Your task to perform on an android device: Find coffee shops on Maps Image 0: 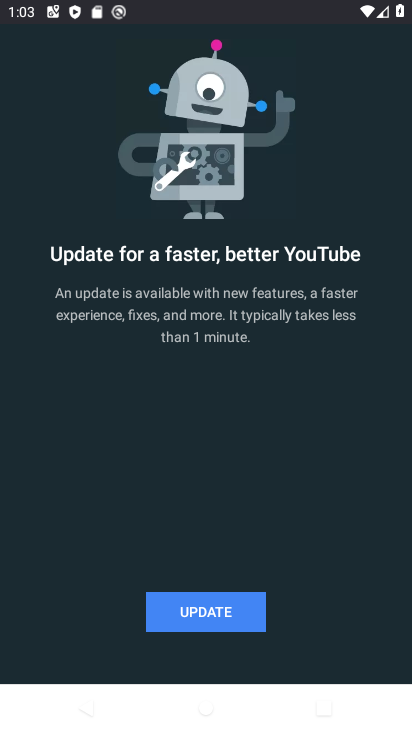
Step 0: click (336, 470)
Your task to perform on an android device: Find coffee shops on Maps Image 1: 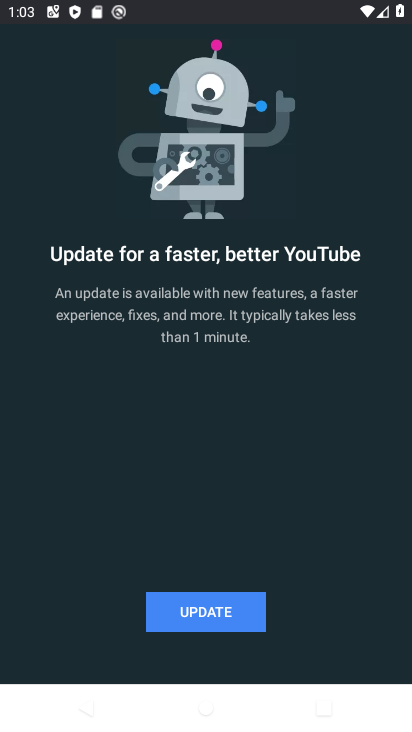
Step 1: press home button
Your task to perform on an android device: Find coffee shops on Maps Image 2: 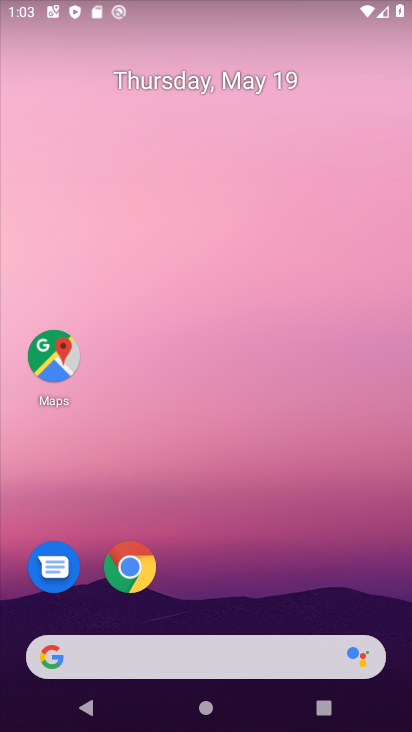
Step 2: click (59, 349)
Your task to perform on an android device: Find coffee shops on Maps Image 3: 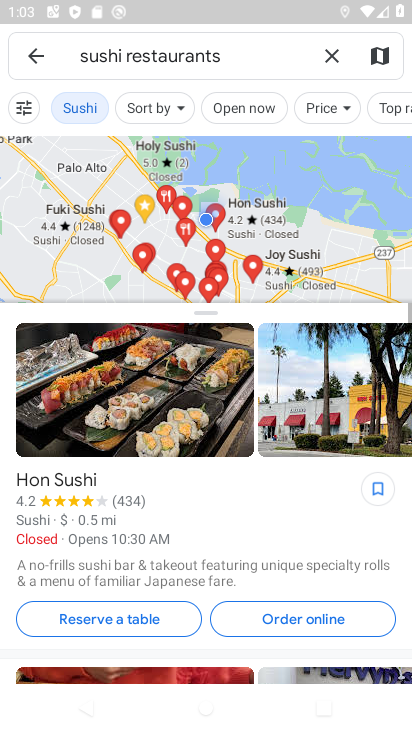
Step 3: click (327, 51)
Your task to perform on an android device: Find coffee shops on Maps Image 4: 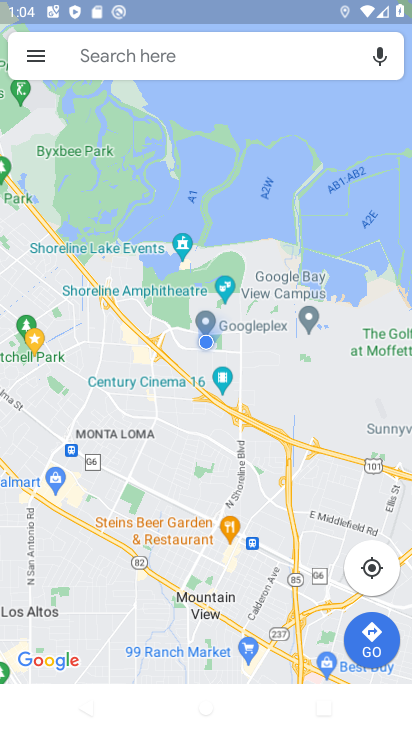
Step 4: click (196, 58)
Your task to perform on an android device: Find coffee shops on Maps Image 5: 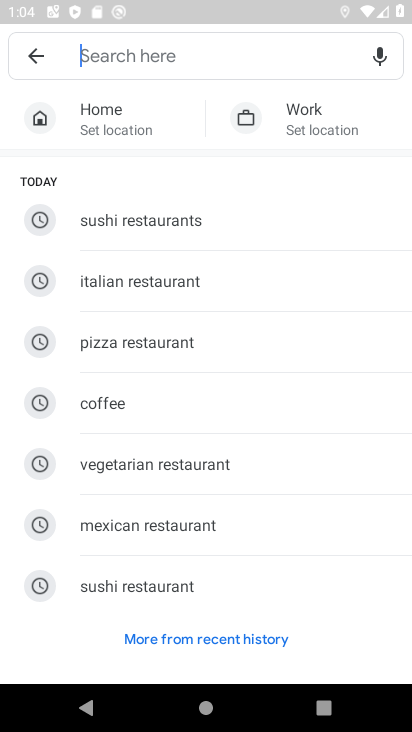
Step 5: click (112, 406)
Your task to perform on an android device: Find coffee shops on Maps Image 6: 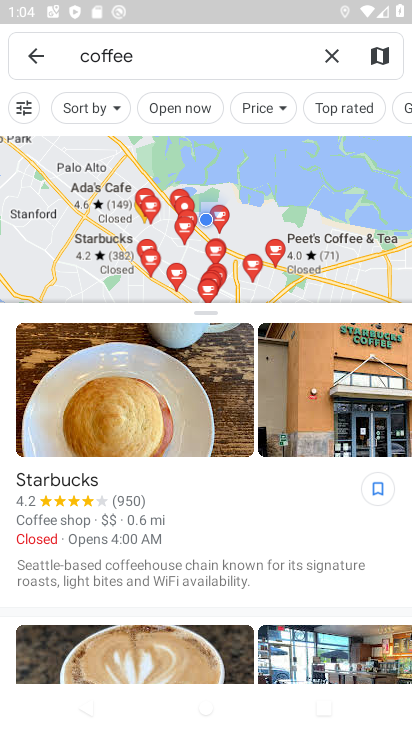
Step 6: task complete